Your task to perform on an android device: Empty the shopping cart on target.com. Add "razer blade" to the cart on target.com, then select checkout. Image 0: 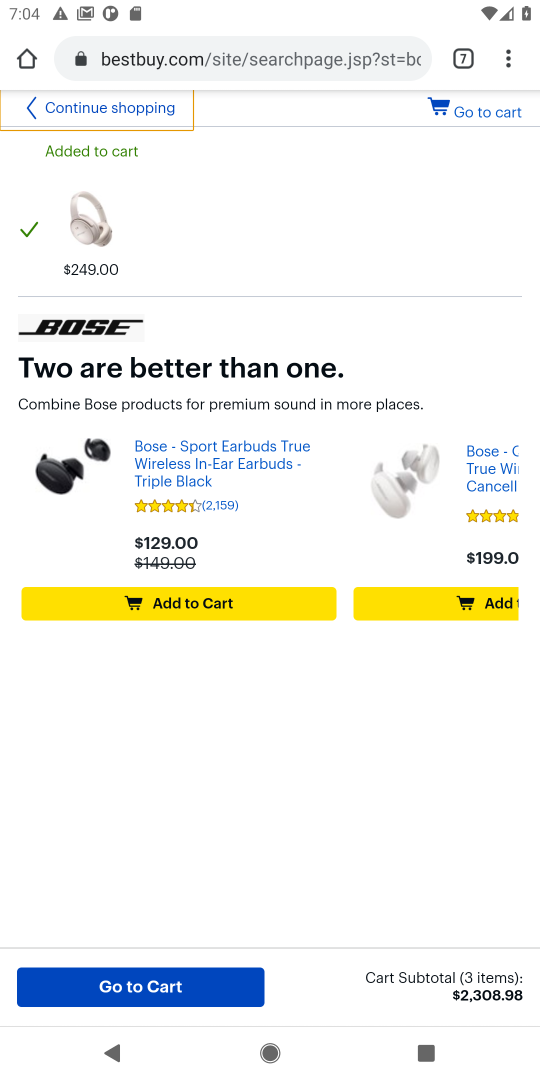
Step 0: press home button
Your task to perform on an android device: Empty the shopping cart on target.com. Add "razer blade" to the cart on target.com, then select checkout. Image 1: 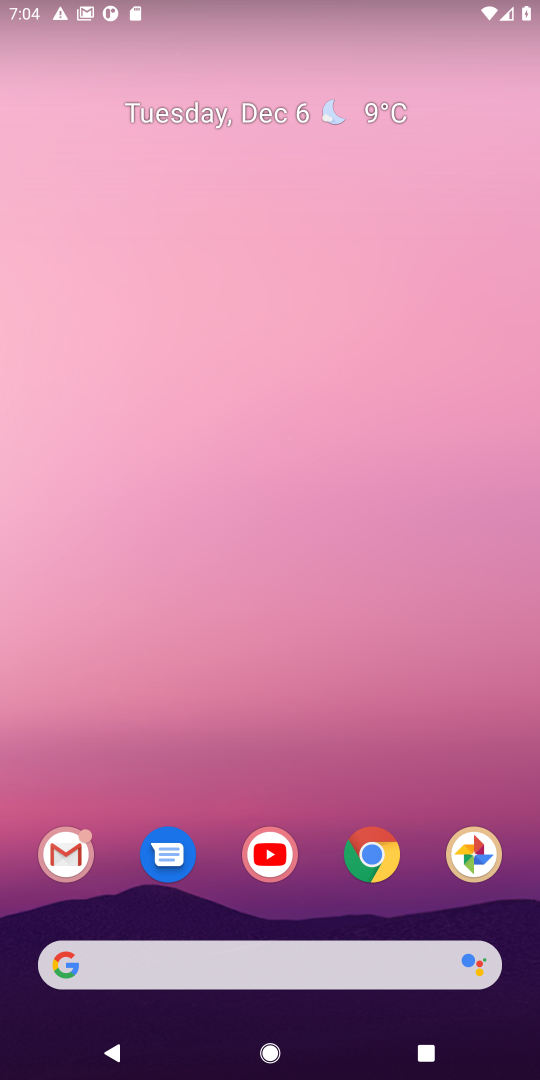
Step 1: click (368, 852)
Your task to perform on an android device: Empty the shopping cart on target.com. Add "razer blade" to the cart on target.com, then select checkout. Image 2: 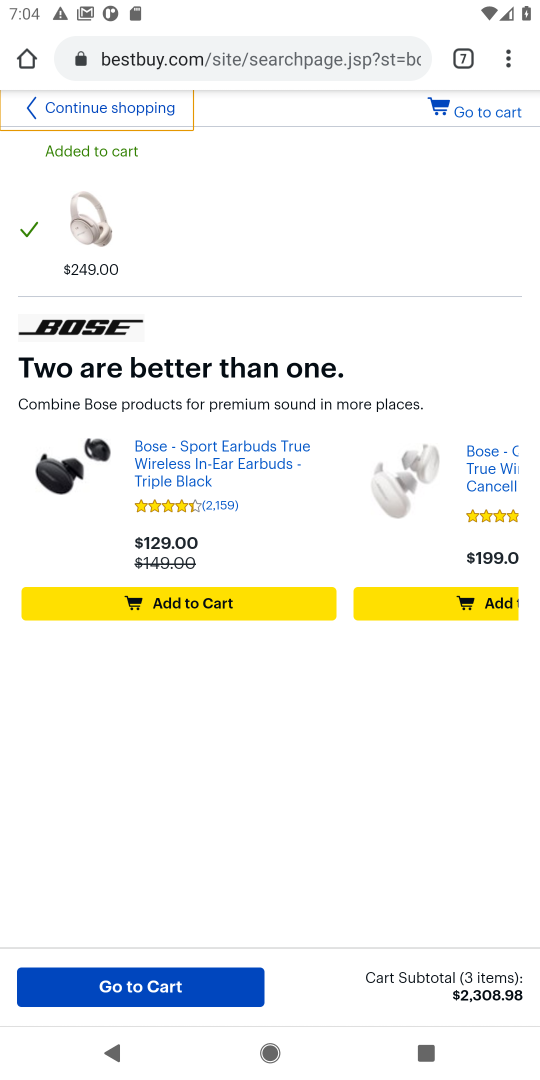
Step 2: click (458, 45)
Your task to perform on an android device: Empty the shopping cart on target.com. Add "razer blade" to the cart on target.com, then select checkout. Image 3: 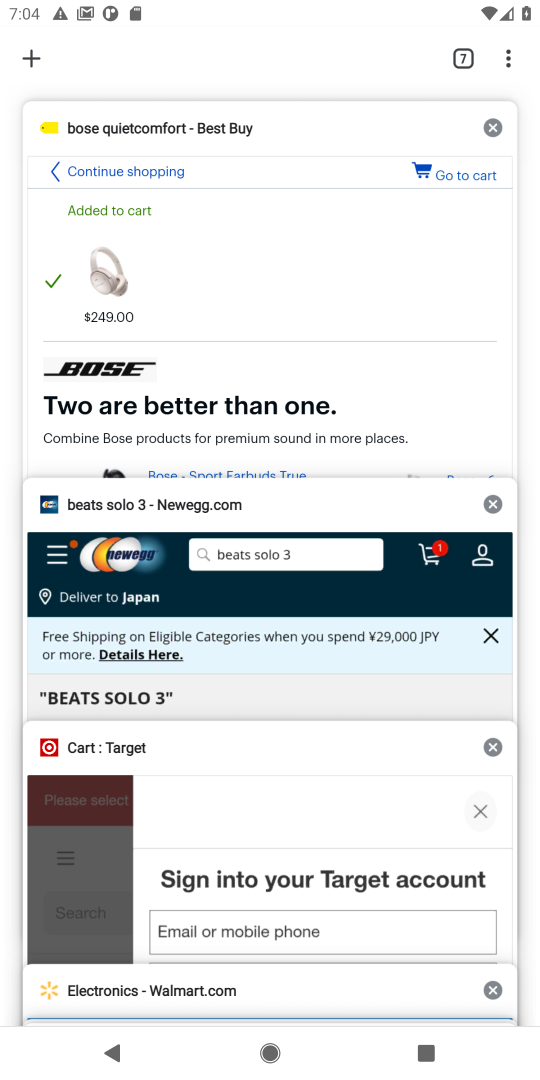
Step 3: click (270, 777)
Your task to perform on an android device: Empty the shopping cart on target.com. Add "razer blade" to the cart on target.com, then select checkout. Image 4: 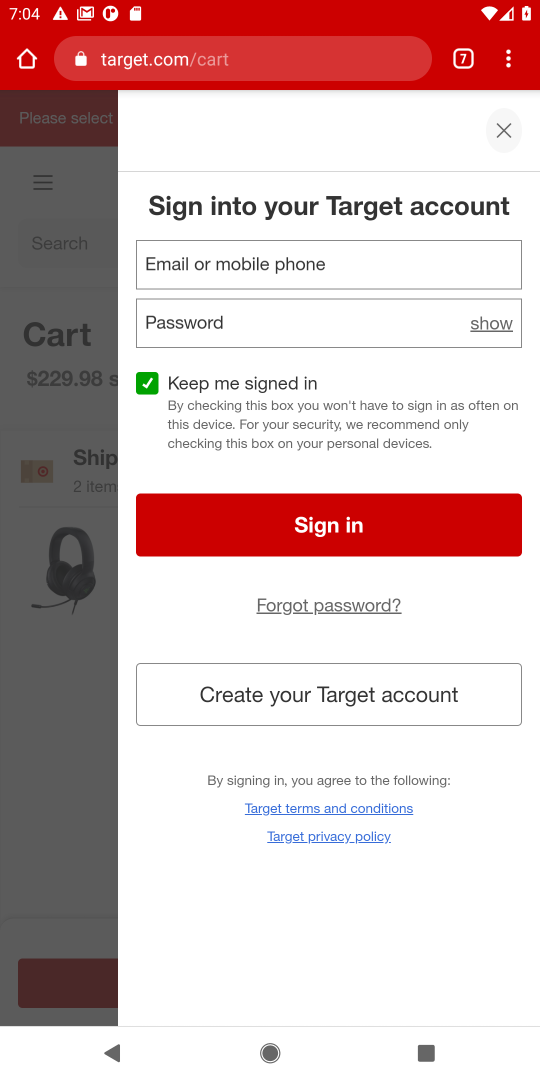
Step 4: click (502, 131)
Your task to perform on an android device: Empty the shopping cart on target.com. Add "razer blade" to the cart on target.com, then select checkout. Image 5: 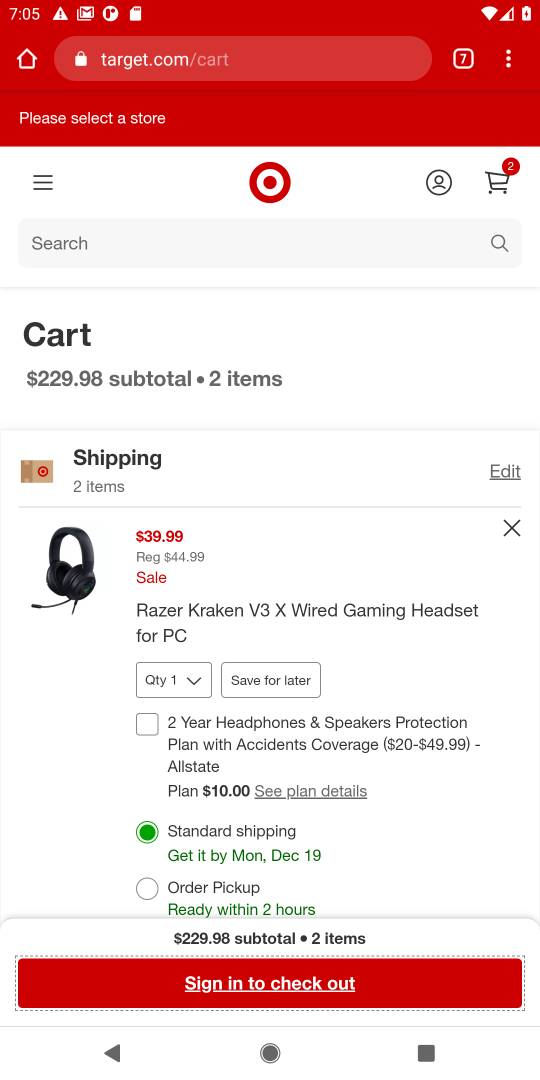
Step 5: click (212, 244)
Your task to perform on an android device: Empty the shopping cart on target.com. Add "razer blade" to the cart on target.com, then select checkout. Image 6: 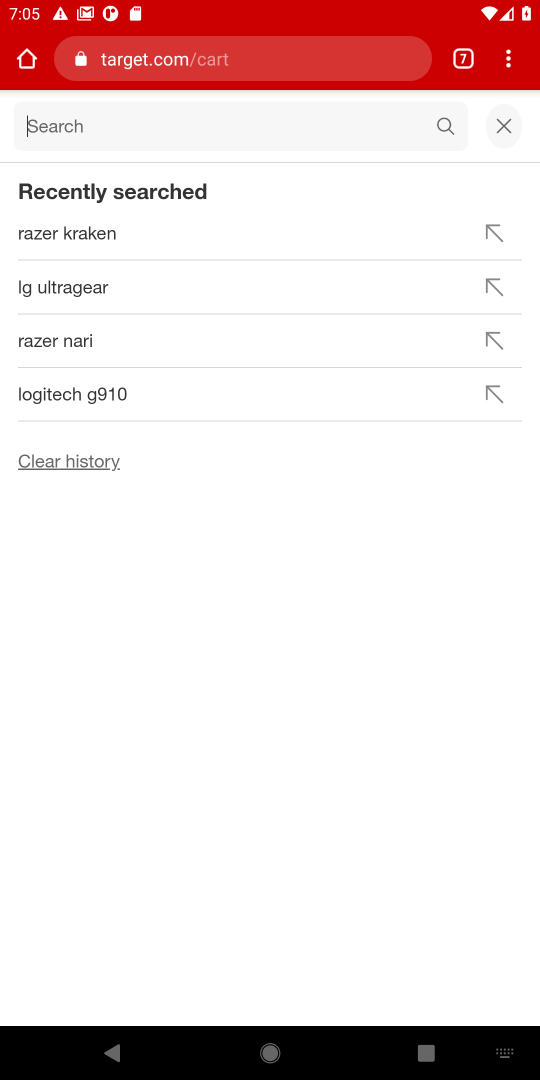
Step 6: type "razer blade"
Your task to perform on an android device: Empty the shopping cart on target.com. Add "razer blade" to the cart on target.com, then select checkout. Image 7: 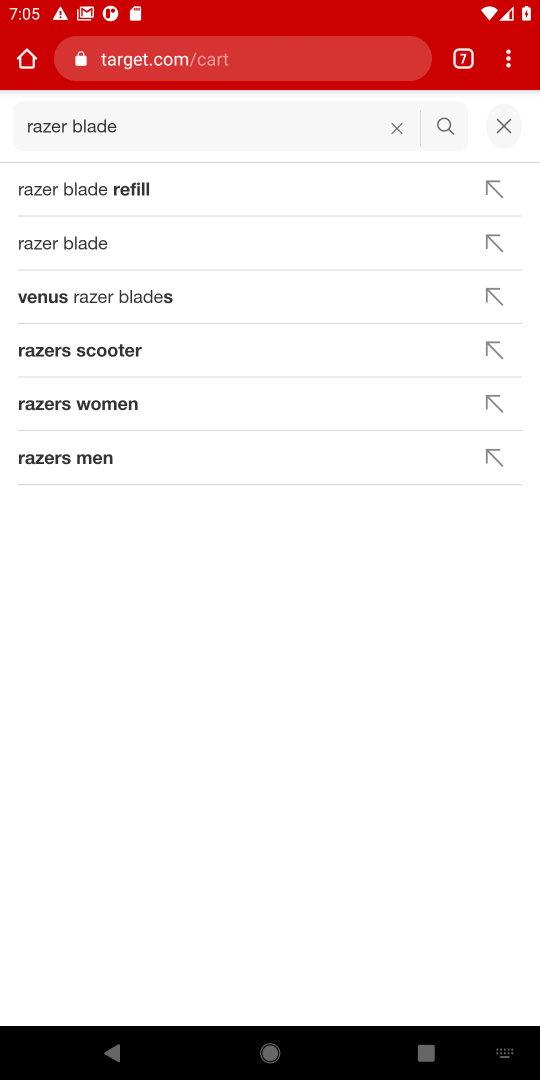
Step 7: click (52, 244)
Your task to perform on an android device: Empty the shopping cart on target.com. Add "razer blade" to the cart on target.com, then select checkout. Image 8: 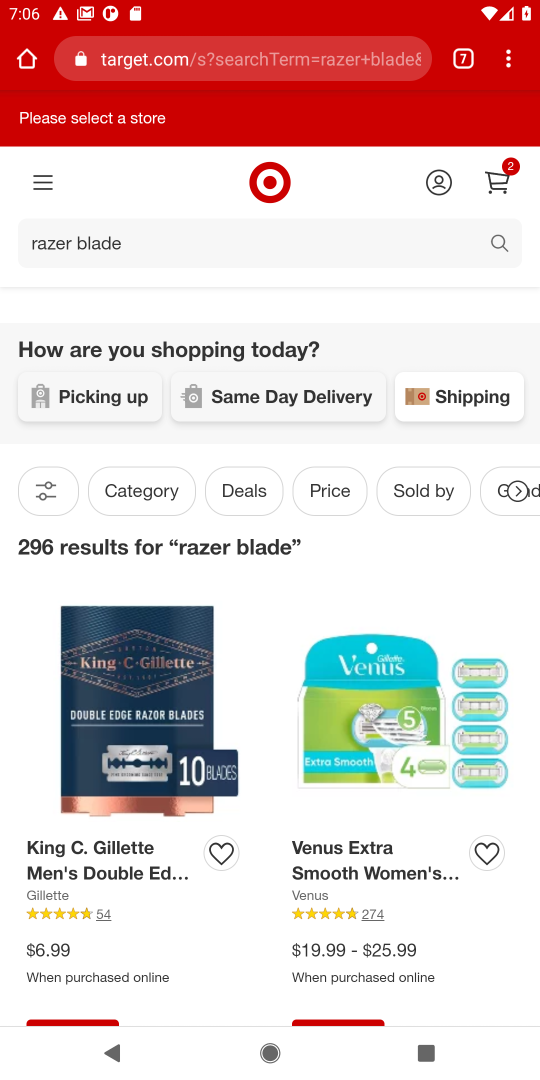
Step 8: click (134, 866)
Your task to perform on an android device: Empty the shopping cart on target.com. Add "razer blade" to the cart on target.com, then select checkout. Image 9: 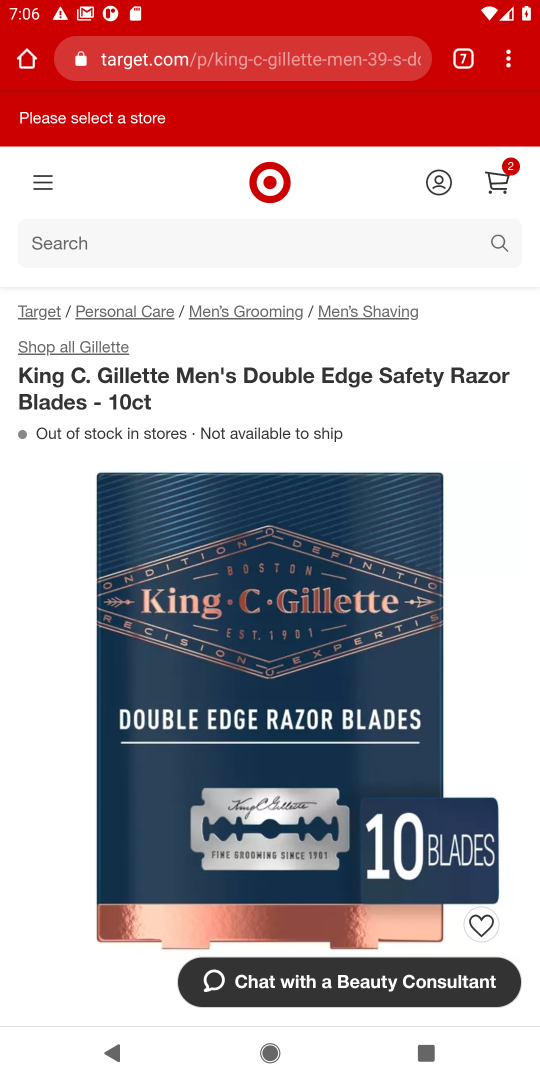
Step 9: drag from (94, 973) to (116, 363)
Your task to perform on an android device: Empty the shopping cart on target.com. Add "razer blade" to the cart on target.com, then select checkout. Image 10: 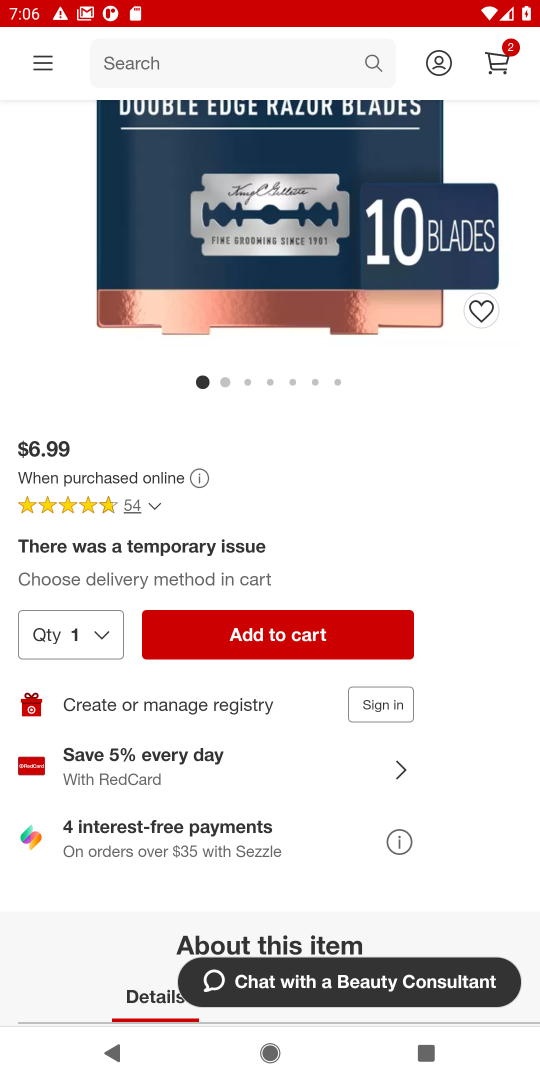
Step 10: click (314, 638)
Your task to perform on an android device: Empty the shopping cart on target.com. Add "razer blade" to the cart on target.com, then select checkout. Image 11: 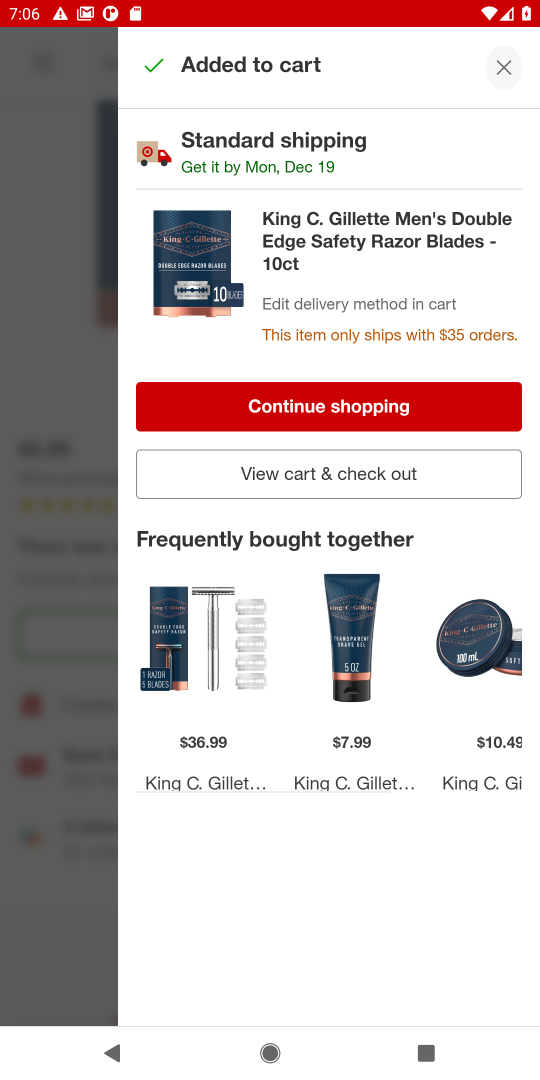
Step 11: task complete